Your task to perform on an android device: open device folders in google photos Image 0: 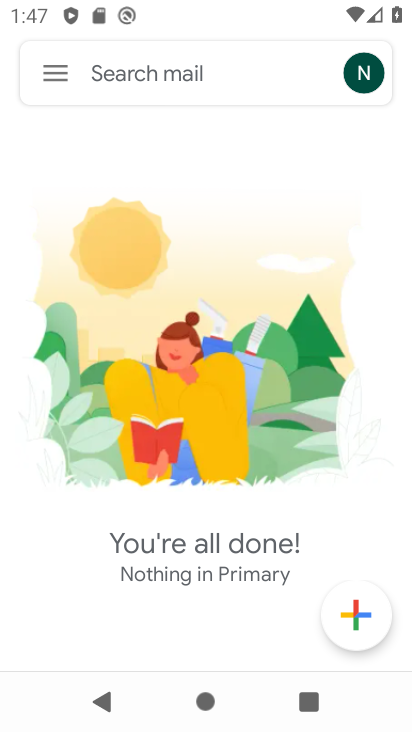
Step 0: press home button
Your task to perform on an android device: open device folders in google photos Image 1: 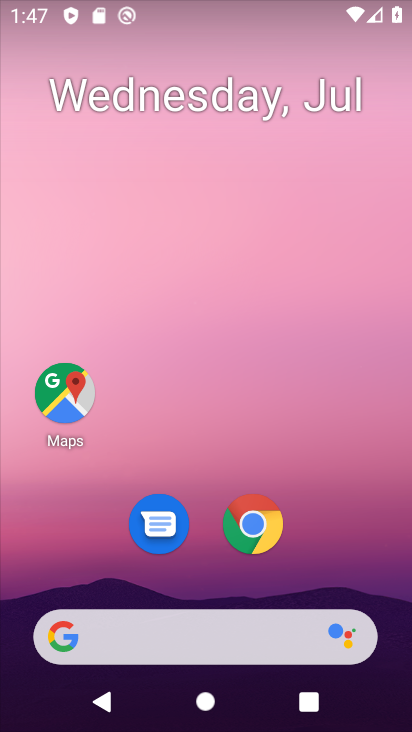
Step 1: drag from (210, 407) to (281, 1)
Your task to perform on an android device: open device folders in google photos Image 2: 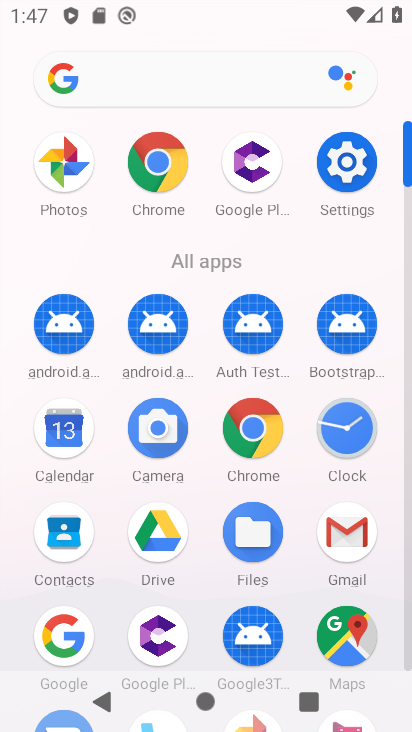
Step 2: click (69, 166)
Your task to perform on an android device: open device folders in google photos Image 3: 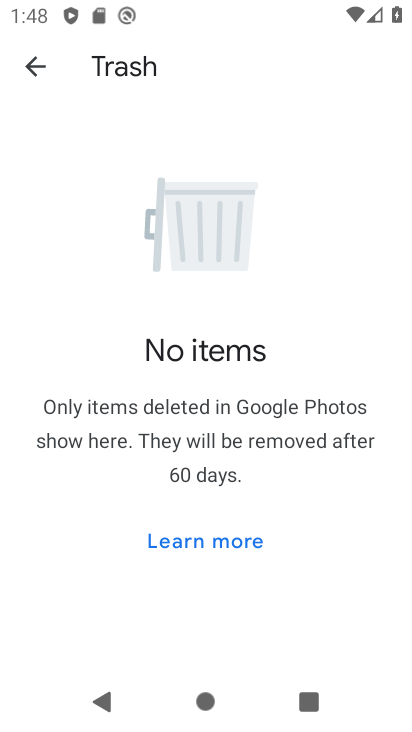
Step 3: click (40, 66)
Your task to perform on an android device: open device folders in google photos Image 4: 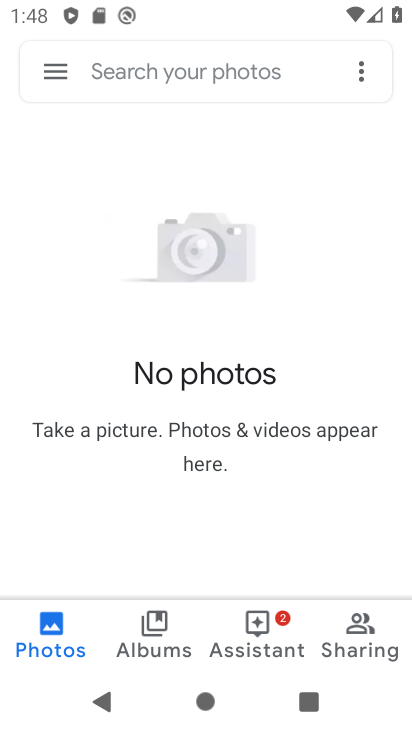
Step 4: click (50, 66)
Your task to perform on an android device: open device folders in google photos Image 5: 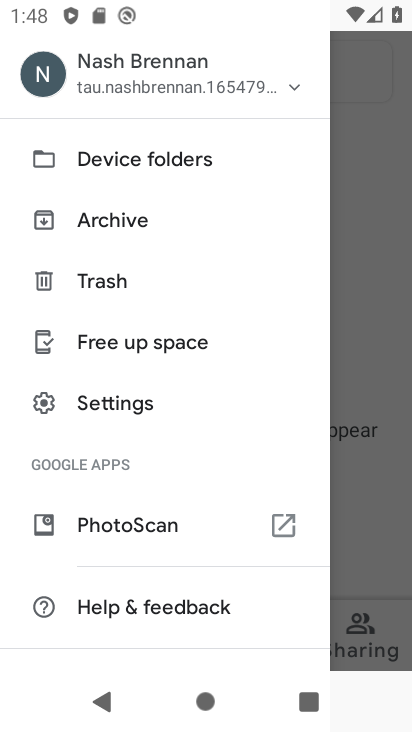
Step 5: click (121, 160)
Your task to perform on an android device: open device folders in google photos Image 6: 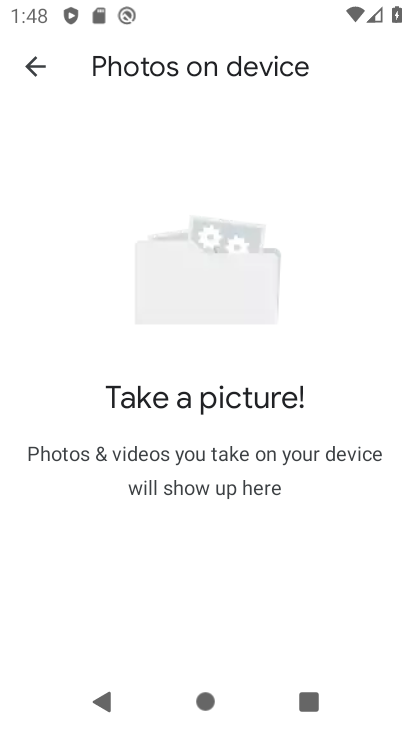
Step 6: task complete